Your task to perform on an android device: toggle pop-ups in chrome Image 0: 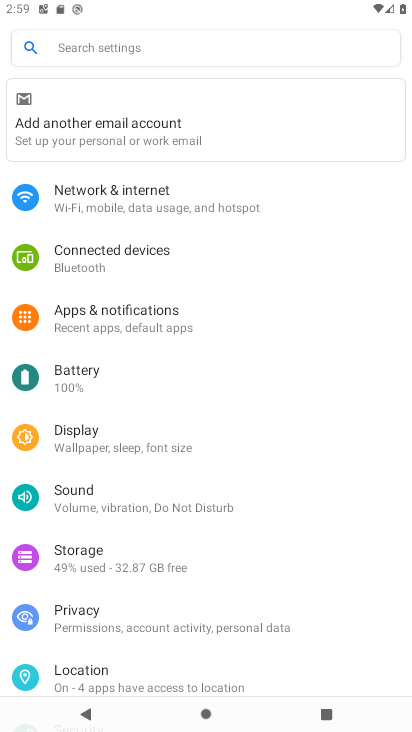
Step 0: press home button
Your task to perform on an android device: toggle pop-ups in chrome Image 1: 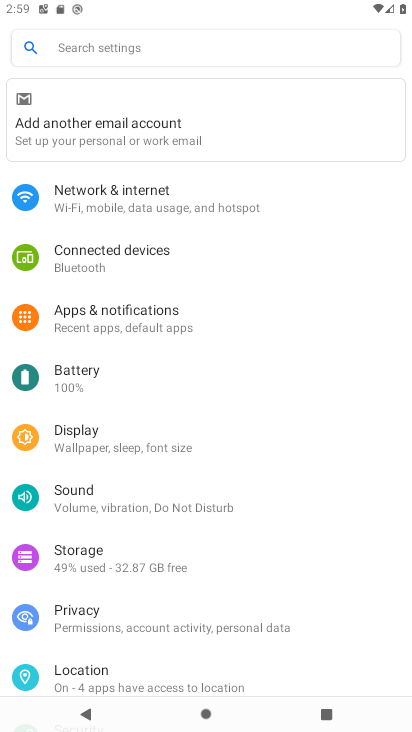
Step 1: press home button
Your task to perform on an android device: toggle pop-ups in chrome Image 2: 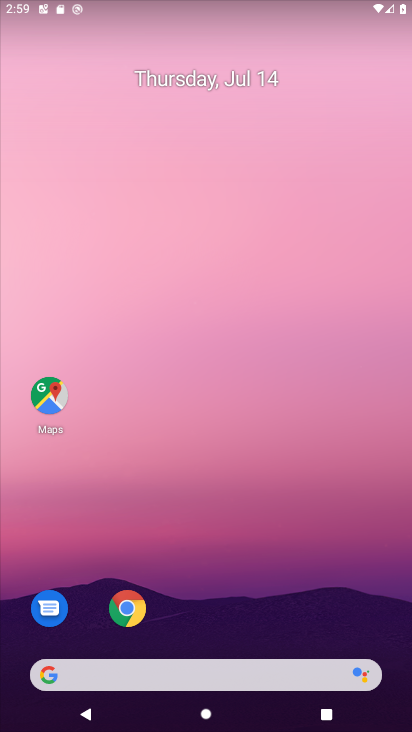
Step 2: drag from (273, 557) to (282, 723)
Your task to perform on an android device: toggle pop-ups in chrome Image 3: 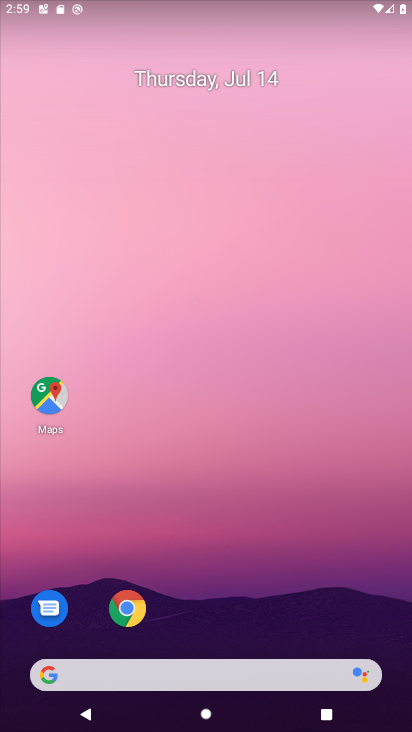
Step 3: drag from (380, 596) to (275, 124)
Your task to perform on an android device: toggle pop-ups in chrome Image 4: 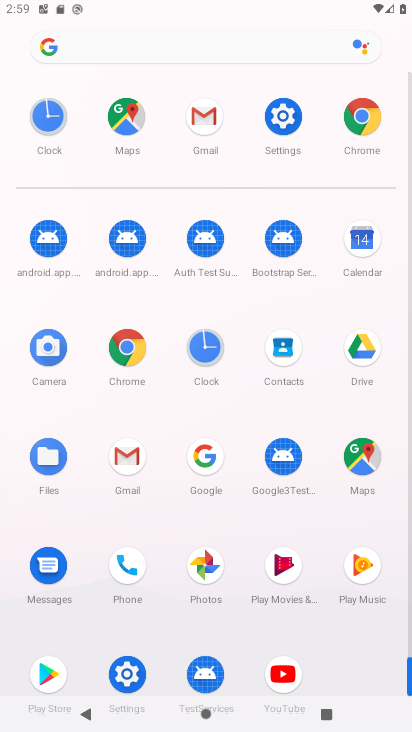
Step 4: click (361, 96)
Your task to perform on an android device: toggle pop-ups in chrome Image 5: 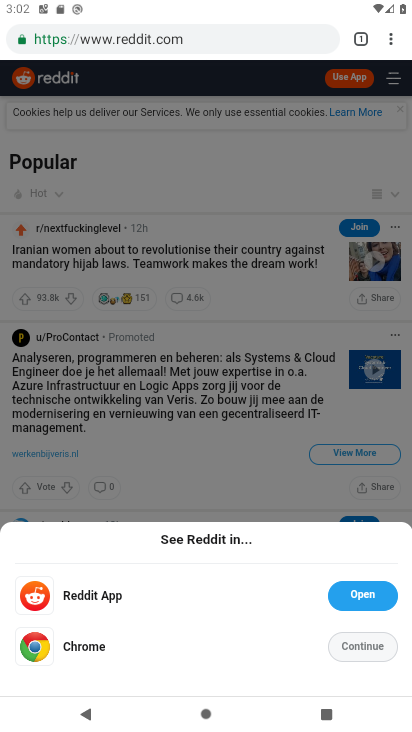
Step 5: drag from (393, 37) to (278, 460)
Your task to perform on an android device: toggle pop-ups in chrome Image 6: 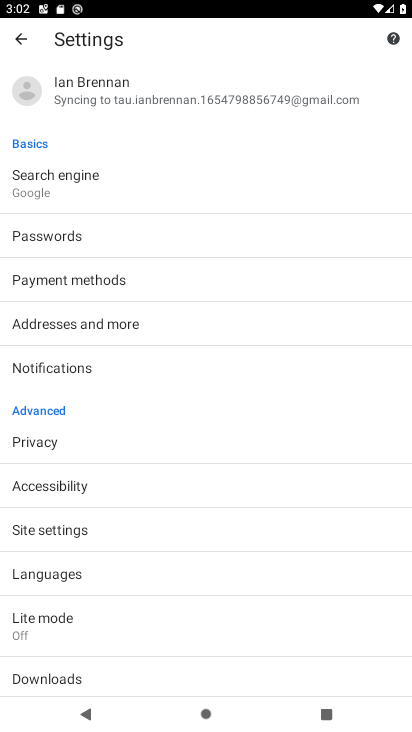
Step 6: click (74, 582)
Your task to perform on an android device: toggle pop-ups in chrome Image 7: 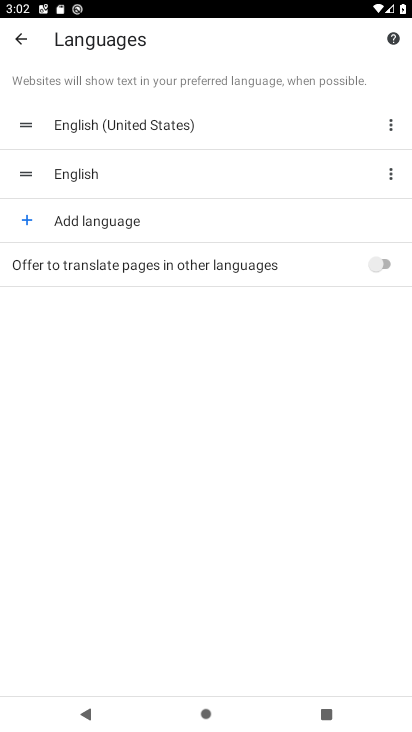
Step 7: click (13, 39)
Your task to perform on an android device: toggle pop-ups in chrome Image 8: 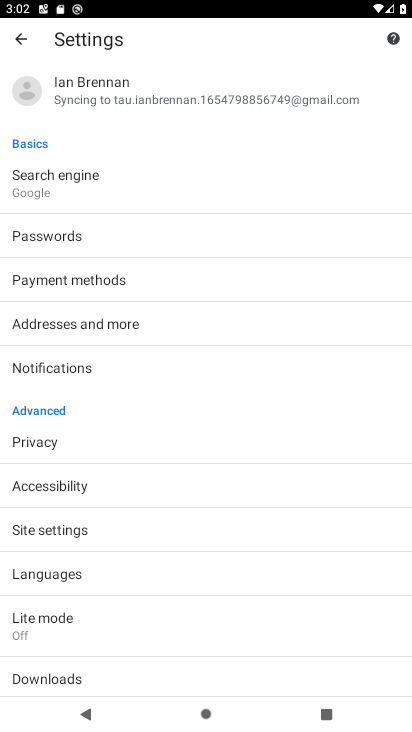
Step 8: click (83, 532)
Your task to perform on an android device: toggle pop-ups in chrome Image 9: 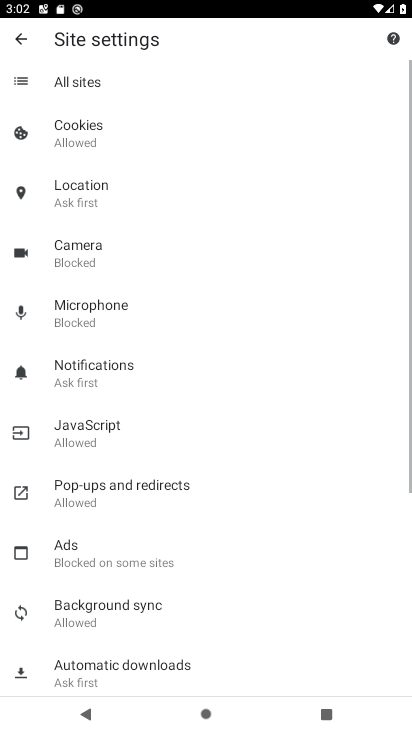
Step 9: click (165, 482)
Your task to perform on an android device: toggle pop-ups in chrome Image 10: 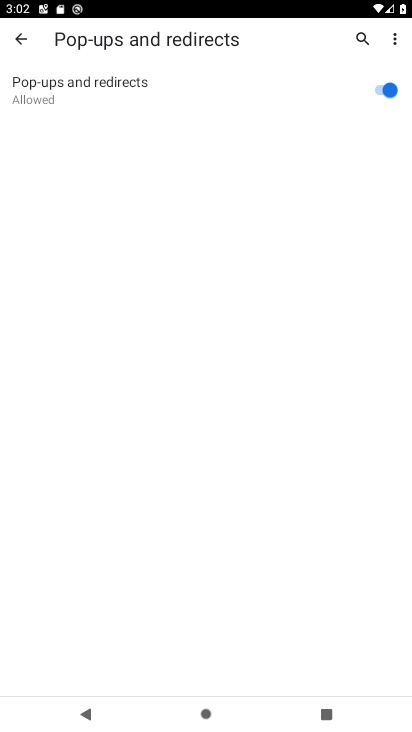
Step 10: click (263, 72)
Your task to perform on an android device: toggle pop-ups in chrome Image 11: 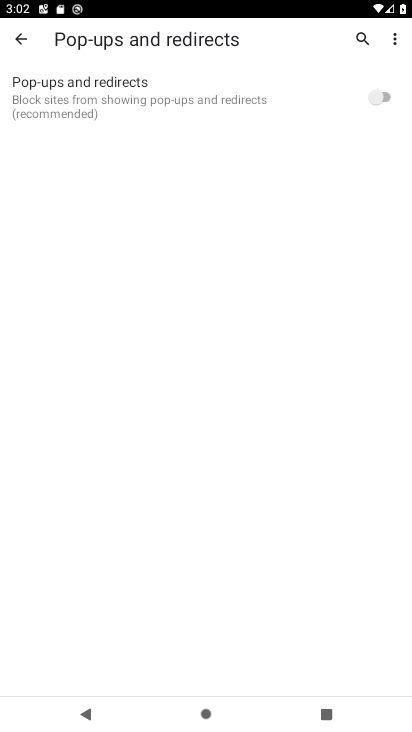
Step 11: task complete